Your task to perform on an android device: Open the map Image 0: 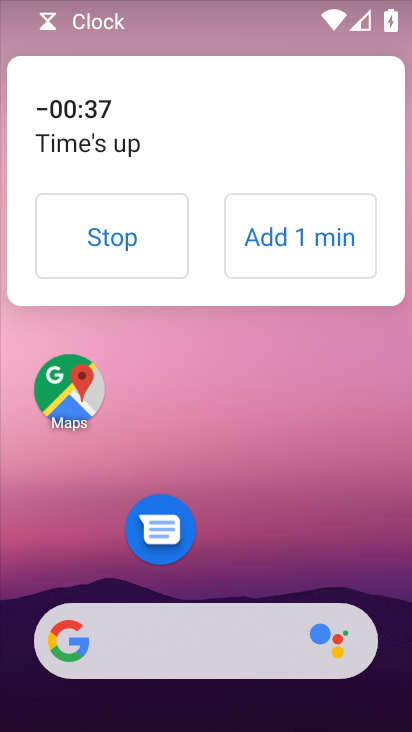
Step 0: click (127, 230)
Your task to perform on an android device: Open the map Image 1: 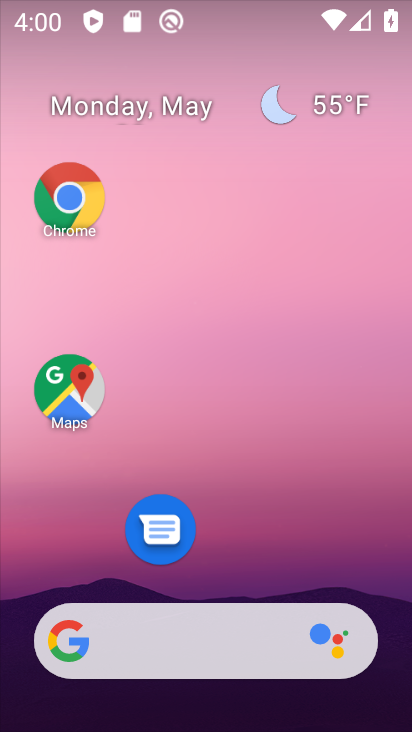
Step 1: click (59, 400)
Your task to perform on an android device: Open the map Image 2: 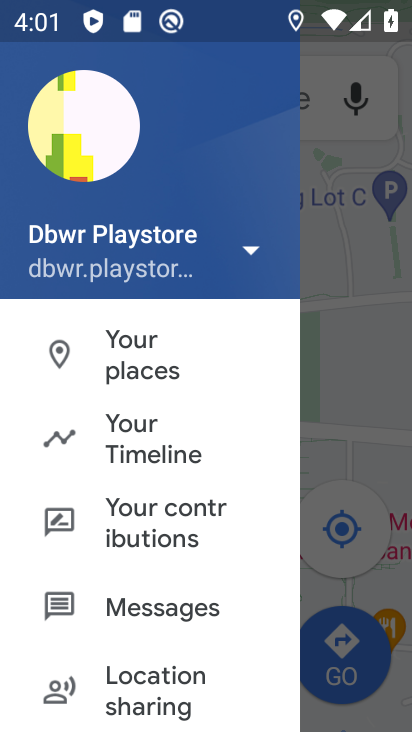
Step 2: click (352, 411)
Your task to perform on an android device: Open the map Image 3: 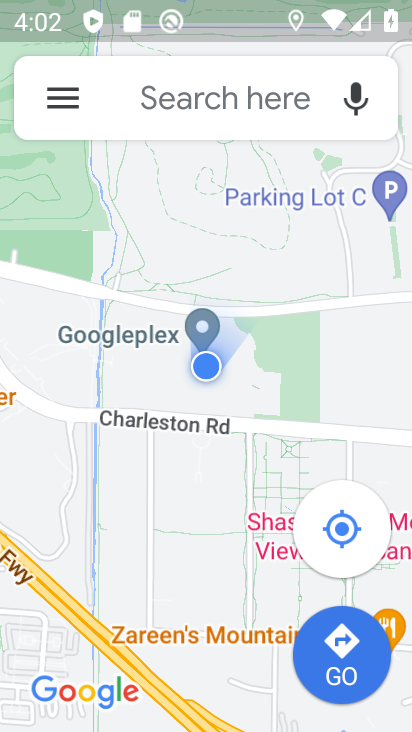
Step 3: task complete